Your task to perform on an android device: Go to battery settings Image 0: 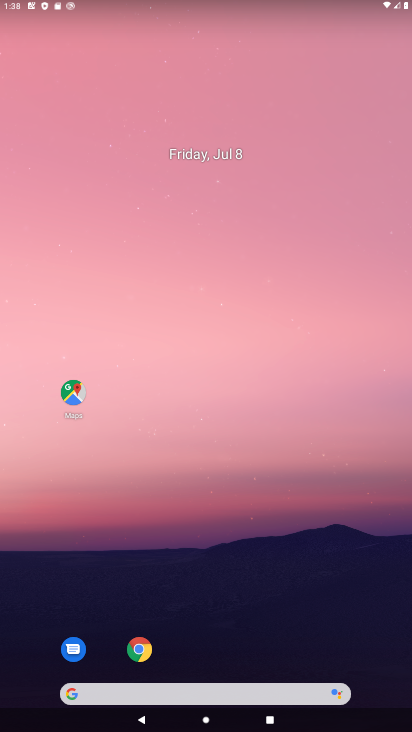
Step 0: drag from (50, 674) to (296, 227)
Your task to perform on an android device: Go to battery settings Image 1: 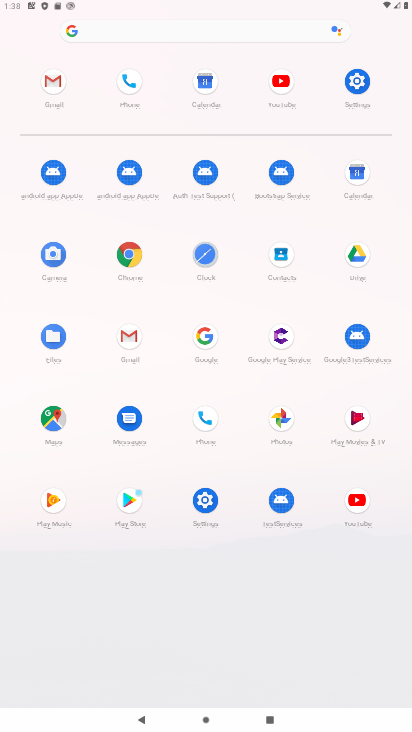
Step 1: click (194, 505)
Your task to perform on an android device: Go to battery settings Image 2: 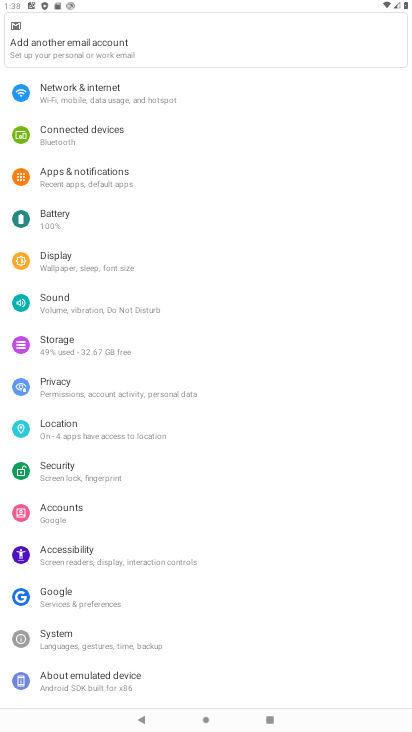
Step 2: click (58, 209)
Your task to perform on an android device: Go to battery settings Image 3: 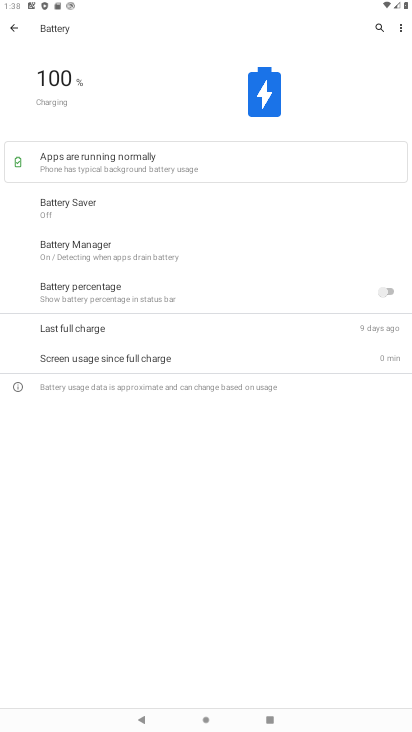
Step 3: task complete